Your task to perform on an android device: clear history in the chrome app Image 0: 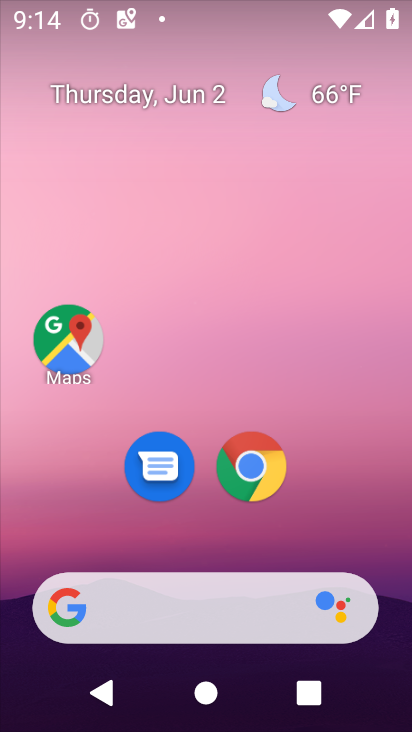
Step 0: click (225, 473)
Your task to perform on an android device: clear history in the chrome app Image 1: 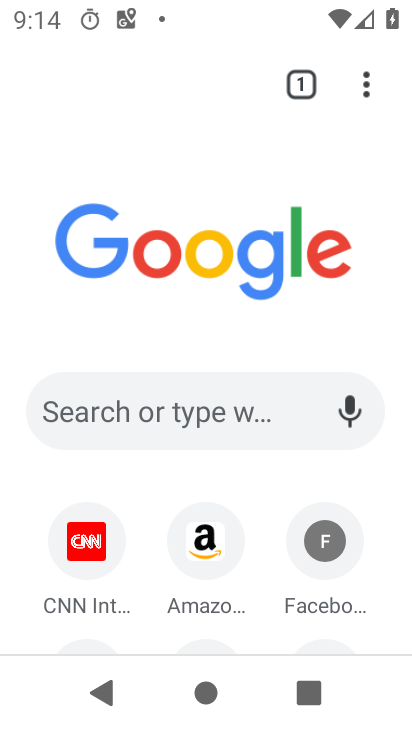
Step 1: click (364, 86)
Your task to perform on an android device: clear history in the chrome app Image 2: 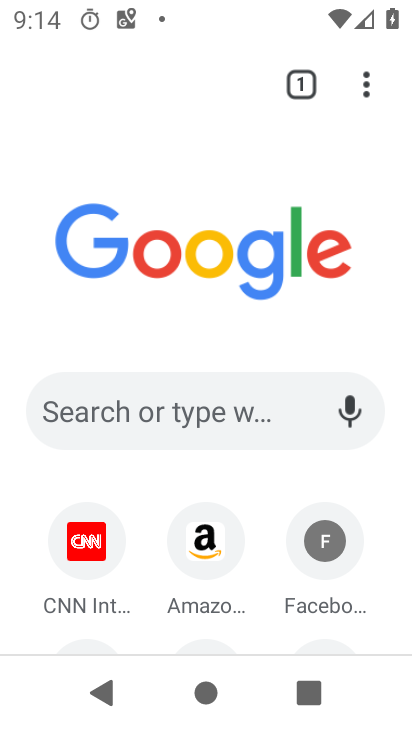
Step 2: click (385, 74)
Your task to perform on an android device: clear history in the chrome app Image 3: 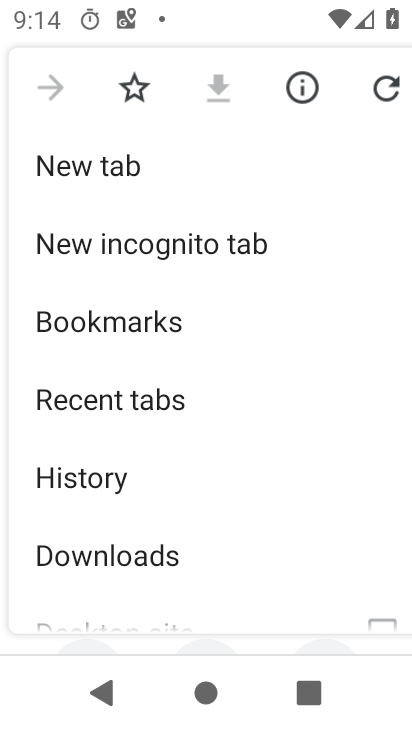
Step 3: click (77, 477)
Your task to perform on an android device: clear history in the chrome app Image 4: 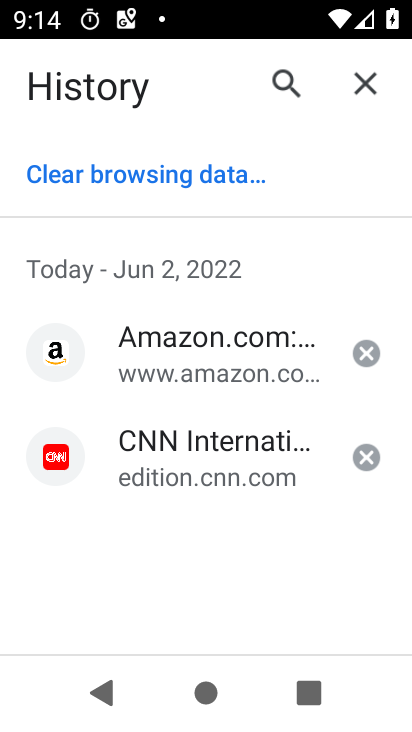
Step 4: click (231, 177)
Your task to perform on an android device: clear history in the chrome app Image 5: 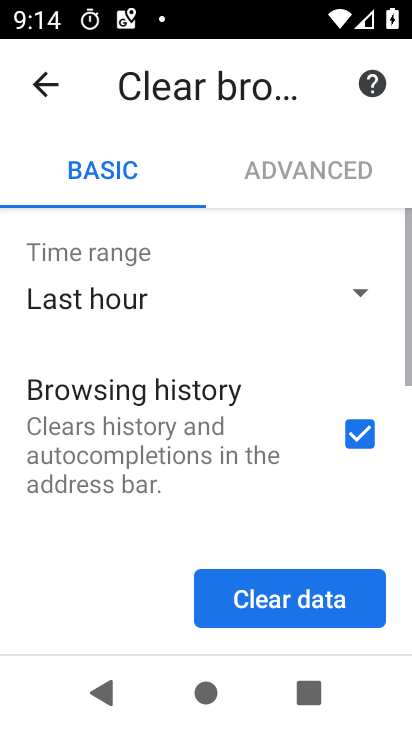
Step 5: click (295, 593)
Your task to perform on an android device: clear history in the chrome app Image 6: 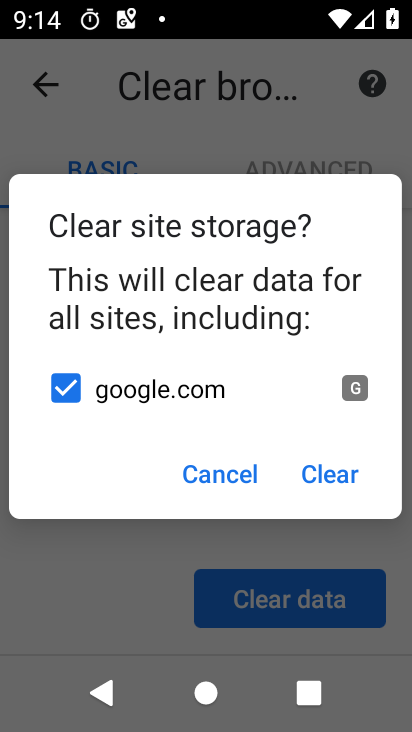
Step 6: click (315, 475)
Your task to perform on an android device: clear history in the chrome app Image 7: 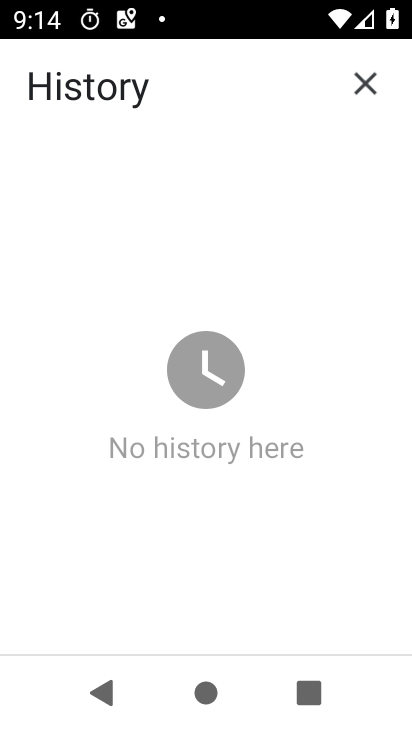
Step 7: task complete